Your task to perform on an android device: delete location history Image 0: 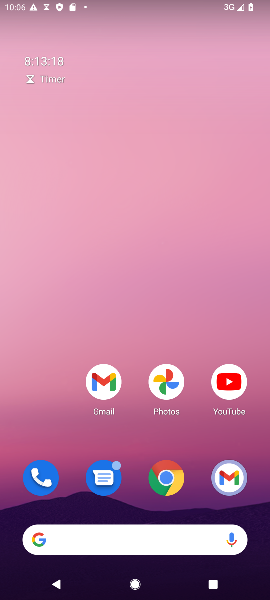
Step 0: drag from (192, 358) to (177, 58)
Your task to perform on an android device: delete location history Image 1: 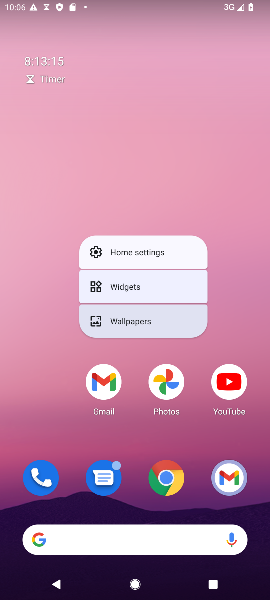
Step 1: drag from (203, 457) to (165, 17)
Your task to perform on an android device: delete location history Image 2: 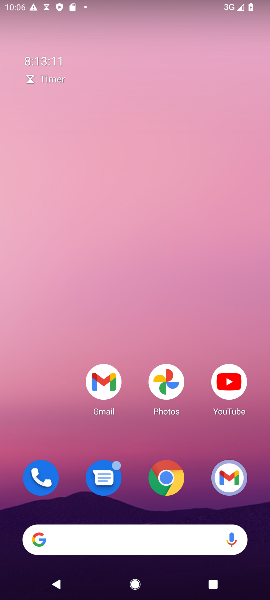
Step 2: drag from (261, 526) to (229, 224)
Your task to perform on an android device: delete location history Image 3: 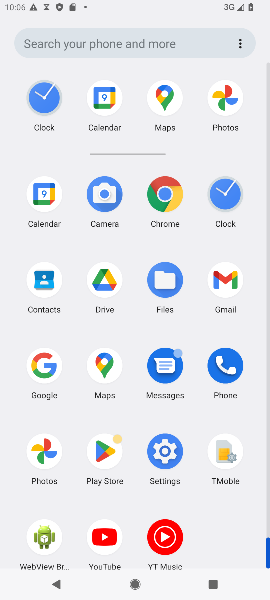
Step 3: click (169, 94)
Your task to perform on an android device: delete location history Image 4: 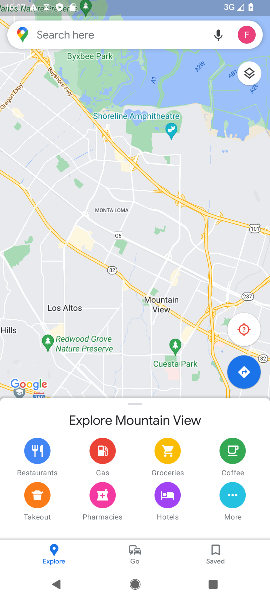
Step 4: click (245, 38)
Your task to perform on an android device: delete location history Image 5: 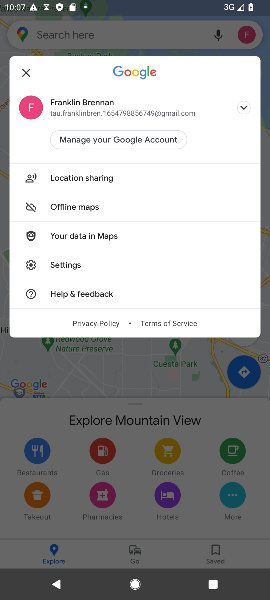
Step 5: click (115, 268)
Your task to perform on an android device: delete location history Image 6: 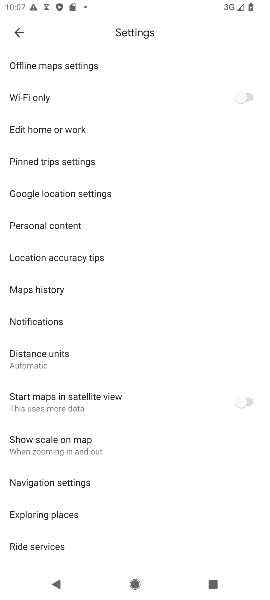
Step 6: task complete